Your task to perform on an android device: toggle airplane mode Image 0: 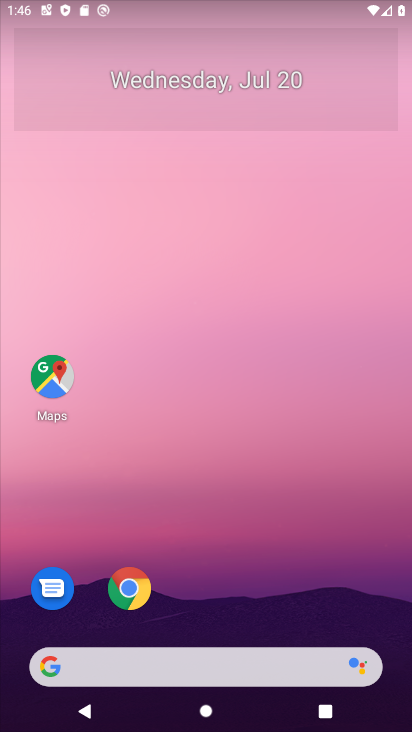
Step 0: drag from (329, 608) to (45, 27)
Your task to perform on an android device: toggle airplane mode Image 1: 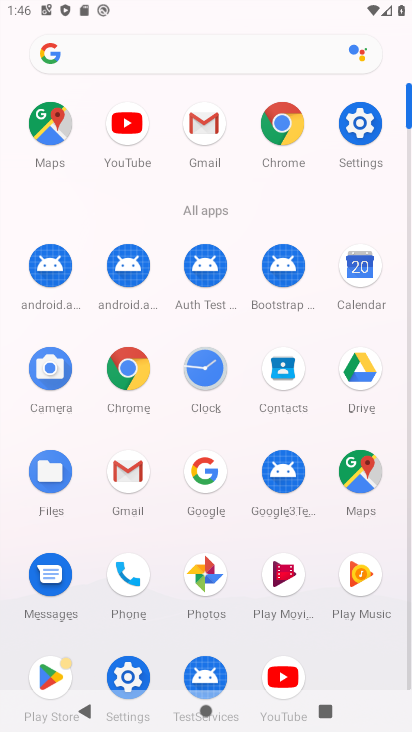
Step 1: click (368, 136)
Your task to perform on an android device: toggle airplane mode Image 2: 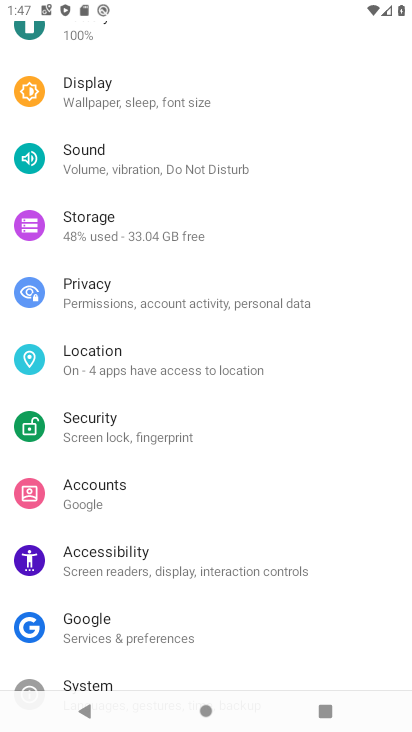
Step 2: drag from (87, 120) to (122, 630)
Your task to perform on an android device: toggle airplane mode Image 3: 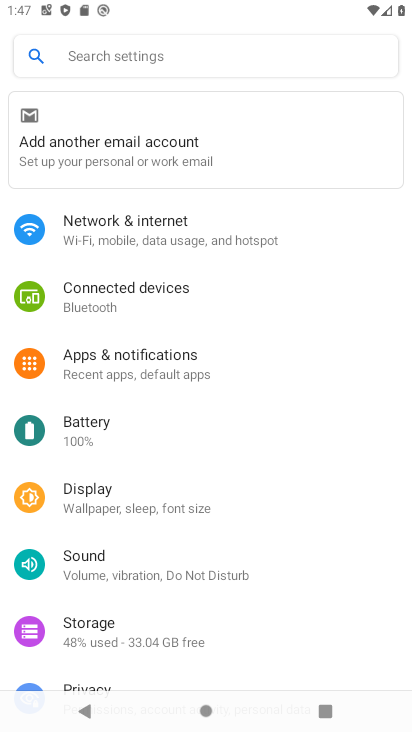
Step 3: click (101, 222)
Your task to perform on an android device: toggle airplane mode Image 4: 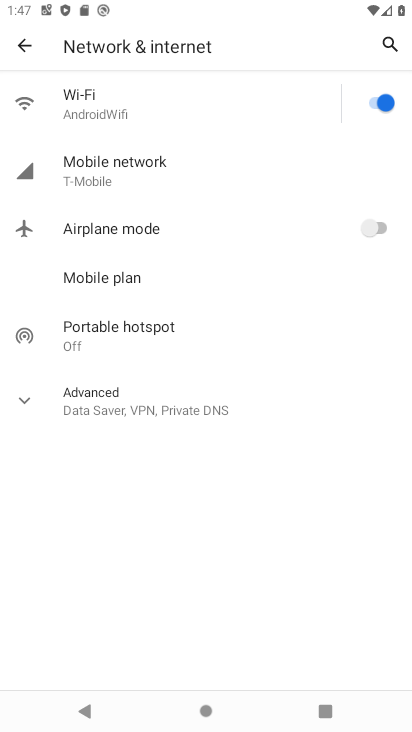
Step 4: click (369, 227)
Your task to perform on an android device: toggle airplane mode Image 5: 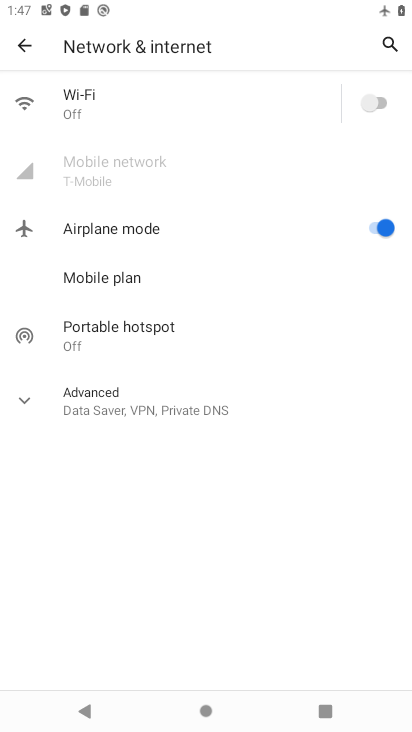
Step 5: task complete